Your task to perform on an android device: turn vacation reply on in the gmail app Image 0: 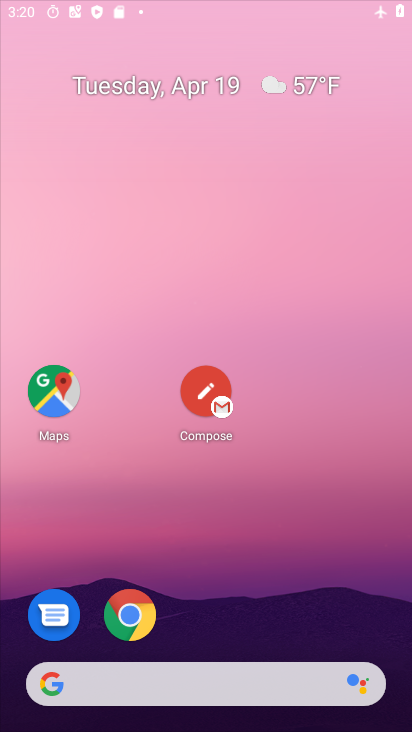
Step 0: click (273, 72)
Your task to perform on an android device: turn vacation reply on in the gmail app Image 1: 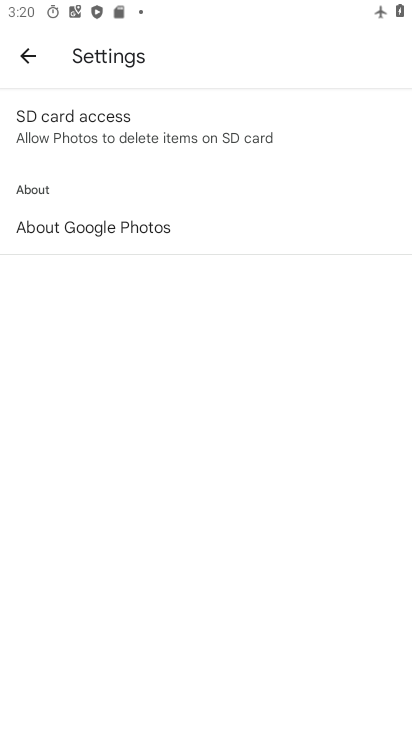
Step 1: press home button
Your task to perform on an android device: turn vacation reply on in the gmail app Image 2: 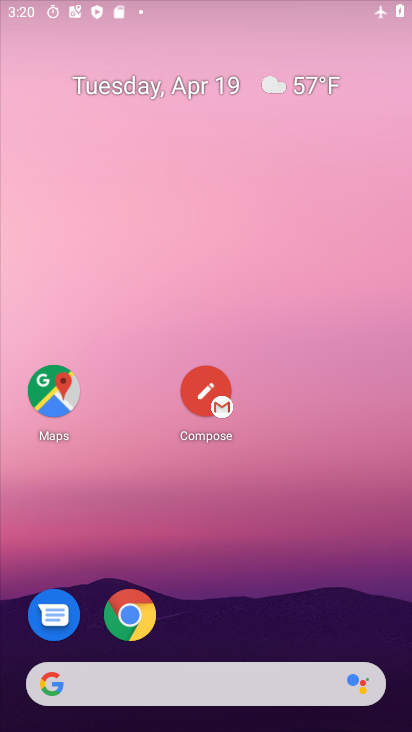
Step 2: drag from (179, 643) to (246, 128)
Your task to perform on an android device: turn vacation reply on in the gmail app Image 3: 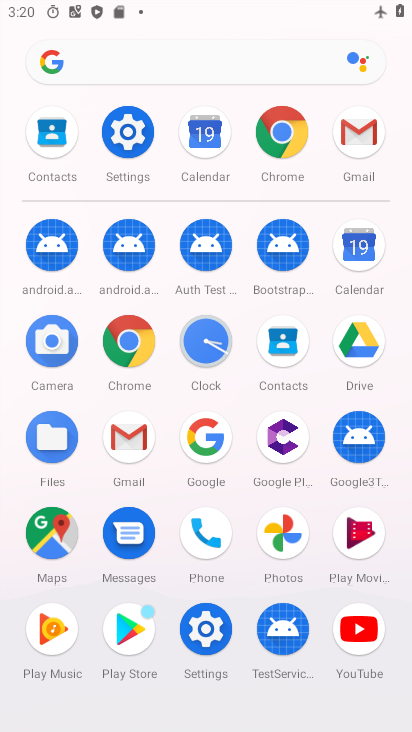
Step 3: click (136, 453)
Your task to perform on an android device: turn vacation reply on in the gmail app Image 4: 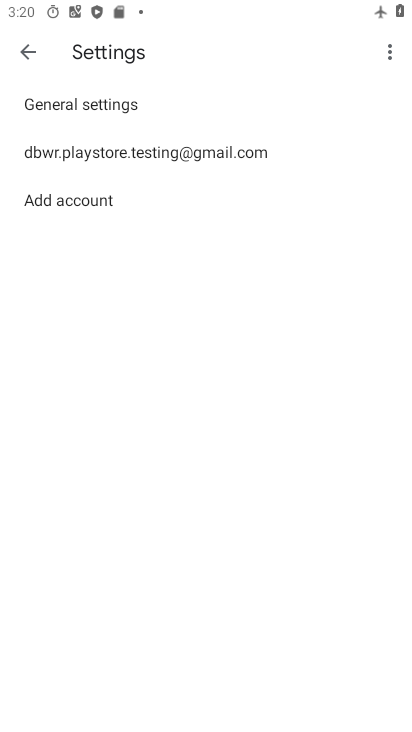
Step 4: click (187, 150)
Your task to perform on an android device: turn vacation reply on in the gmail app Image 5: 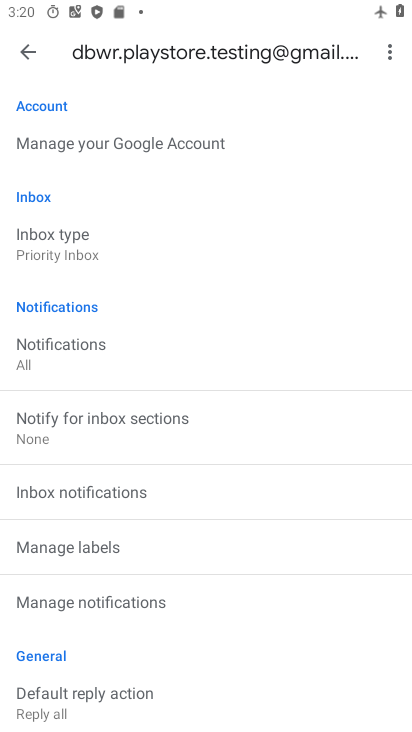
Step 5: drag from (265, 670) to (315, 99)
Your task to perform on an android device: turn vacation reply on in the gmail app Image 6: 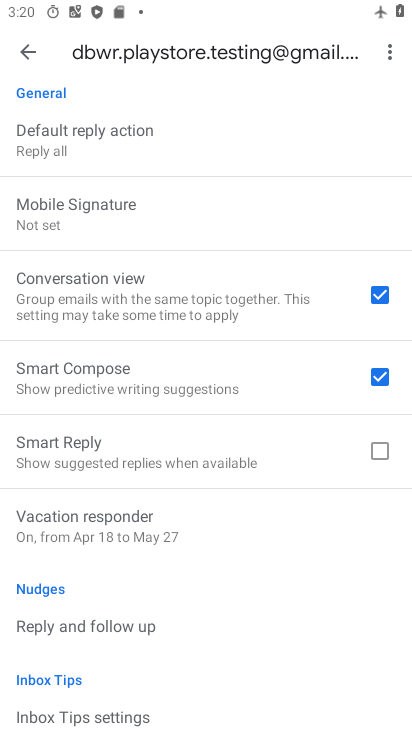
Step 6: click (218, 516)
Your task to perform on an android device: turn vacation reply on in the gmail app Image 7: 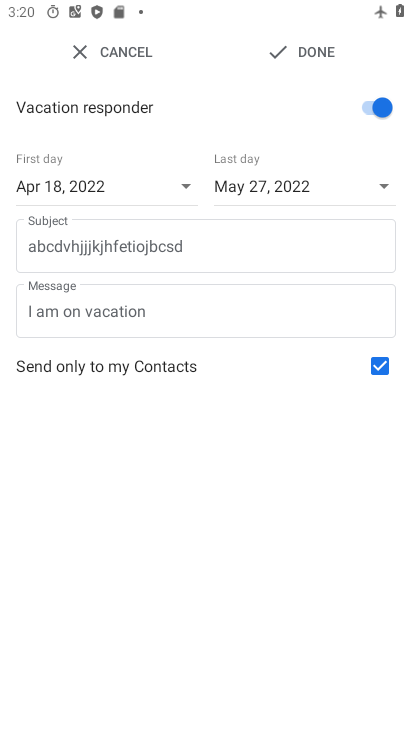
Step 7: click (309, 53)
Your task to perform on an android device: turn vacation reply on in the gmail app Image 8: 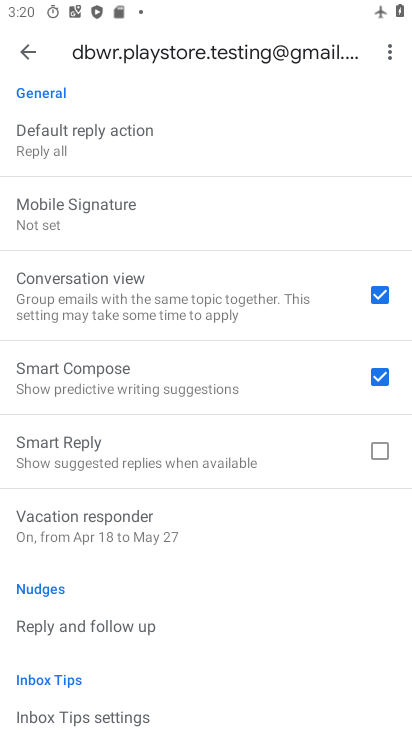
Step 8: task complete